Your task to perform on an android device: find photos in the google photos app Image 0: 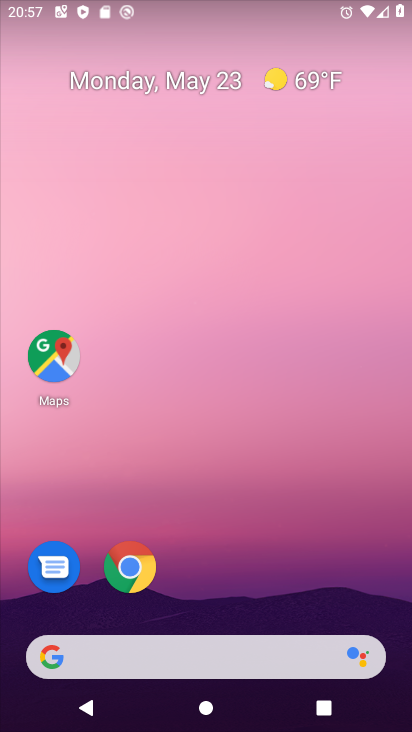
Step 0: drag from (223, 606) to (279, 19)
Your task to perform on an android device: find photos in the google photos app Image 1: 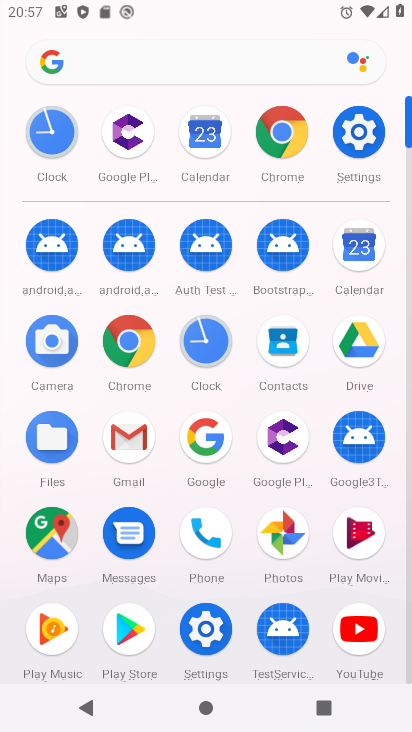
Step 1: click (296, 534)
Your task to perform on an android device: find photos in the google photos app Image 2: 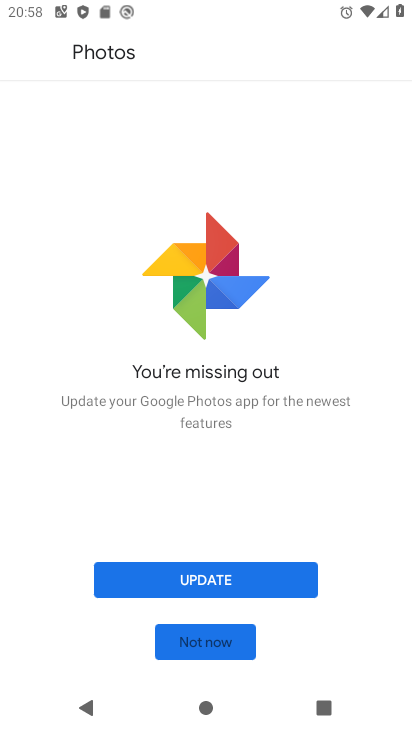
Step 2: click (239, 650)
Your task to perform on an android device: find photos in the google photos app Image 3: 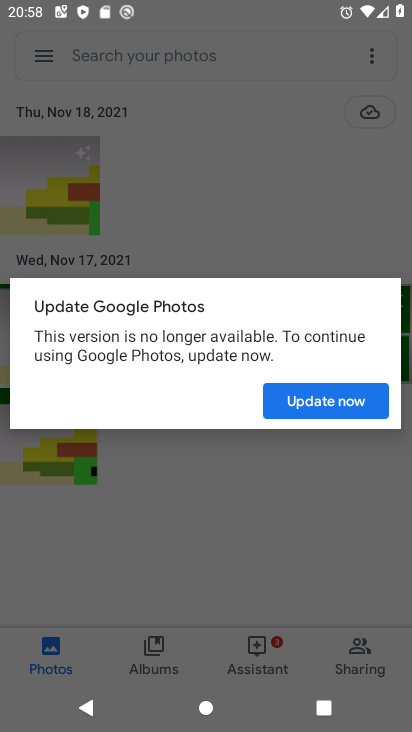
Step 3: click (335, 396)
Your task to perform on an android device: find photos in the google photos app Image 4: 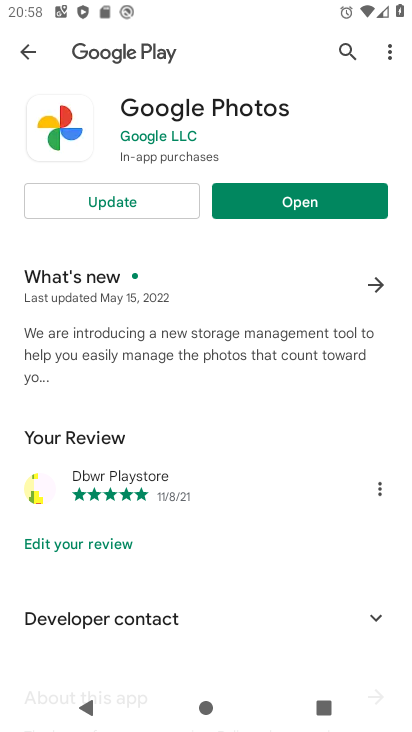
Step 4: click (310, 208)
Your task to perform on an android device: find photos in the google photos app Image 5: 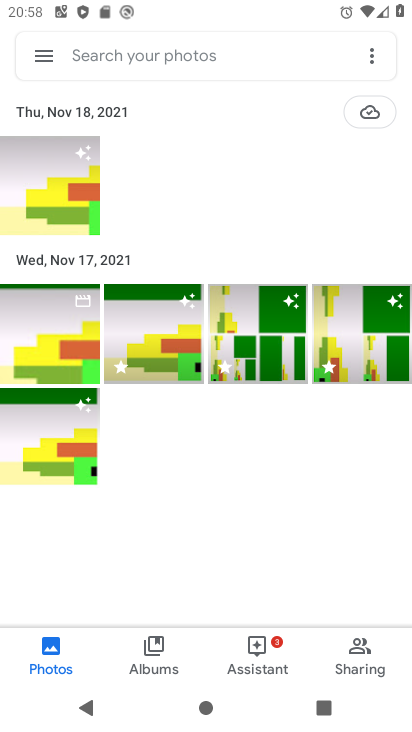
Step 5: task complete